Your task to perform on an android device: turn off priority inbox in the gmail app Image 0: 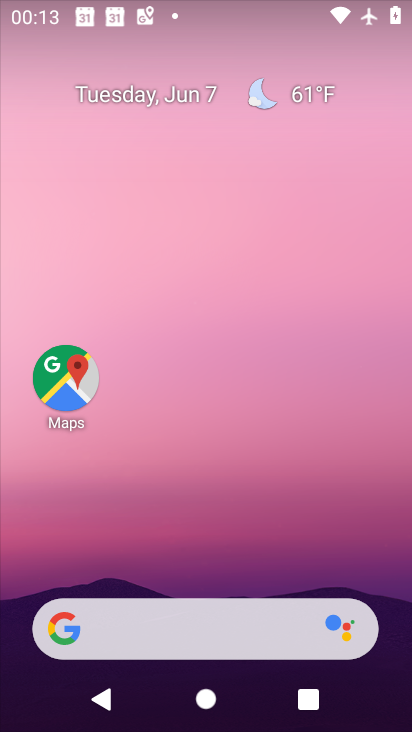
Step 0: drag from (192, 251) to (182, 109)
Your task to perform on an android device: turn off priority inbox in the gmail app Image 1: 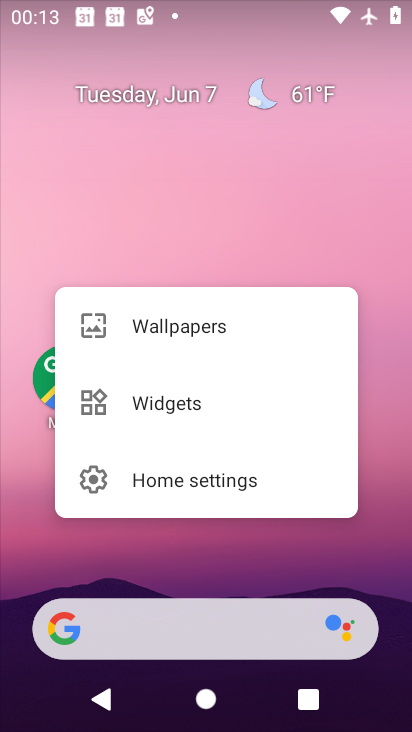
Step 1: drag from (195, 583) to (230, 142)
Your task to perform on an android device: turn off priority inbox in the gmail app Image 2: 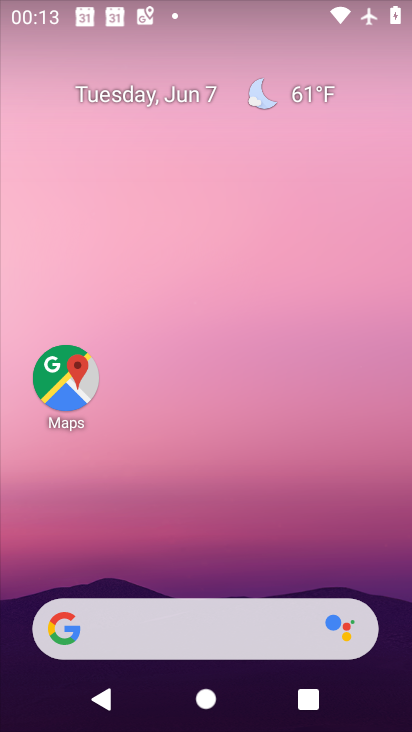
Step 2: drag from (202, 581) to (203, 108)
Your task to perform on an android device: turn off priority inbox in the gmail app Image 3: 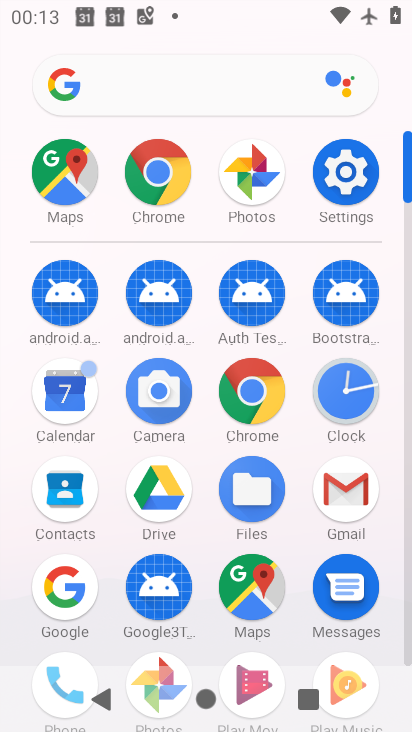
Step 3: click (343, 493)
Your task to perform on an android device: turn off priority inbox in the gmail app Image 4: 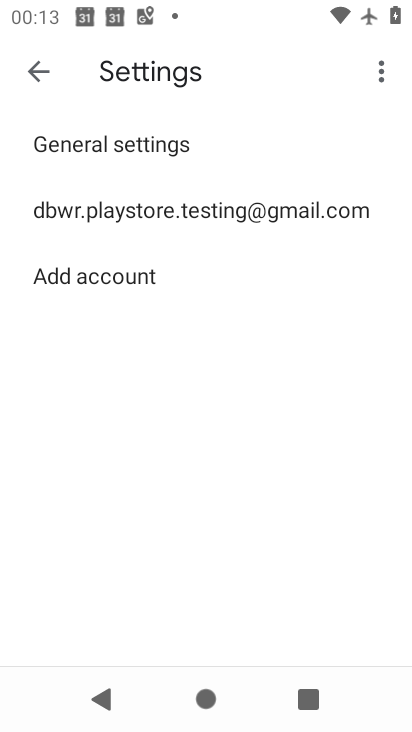
Step 4: click (190, 212)
Your task to perform on an android device: turn off priority inbox in the gmail app Image 5: 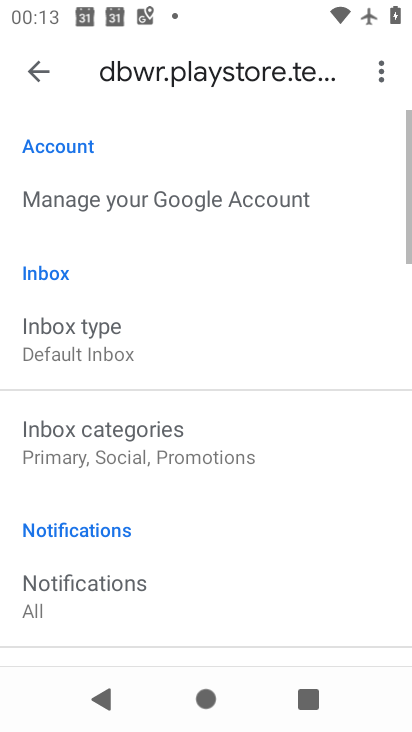
Step 5: click (97, 342)
Your task to perform on an android device: turn off priority inbox in the gmail app Image 6: 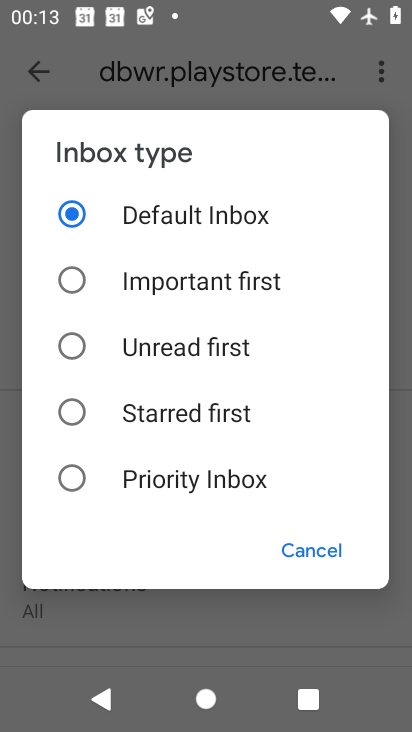
Step 6: task complete